Your task to perform on an android device: open app "Reddit" (install if not already installed) Image 0: 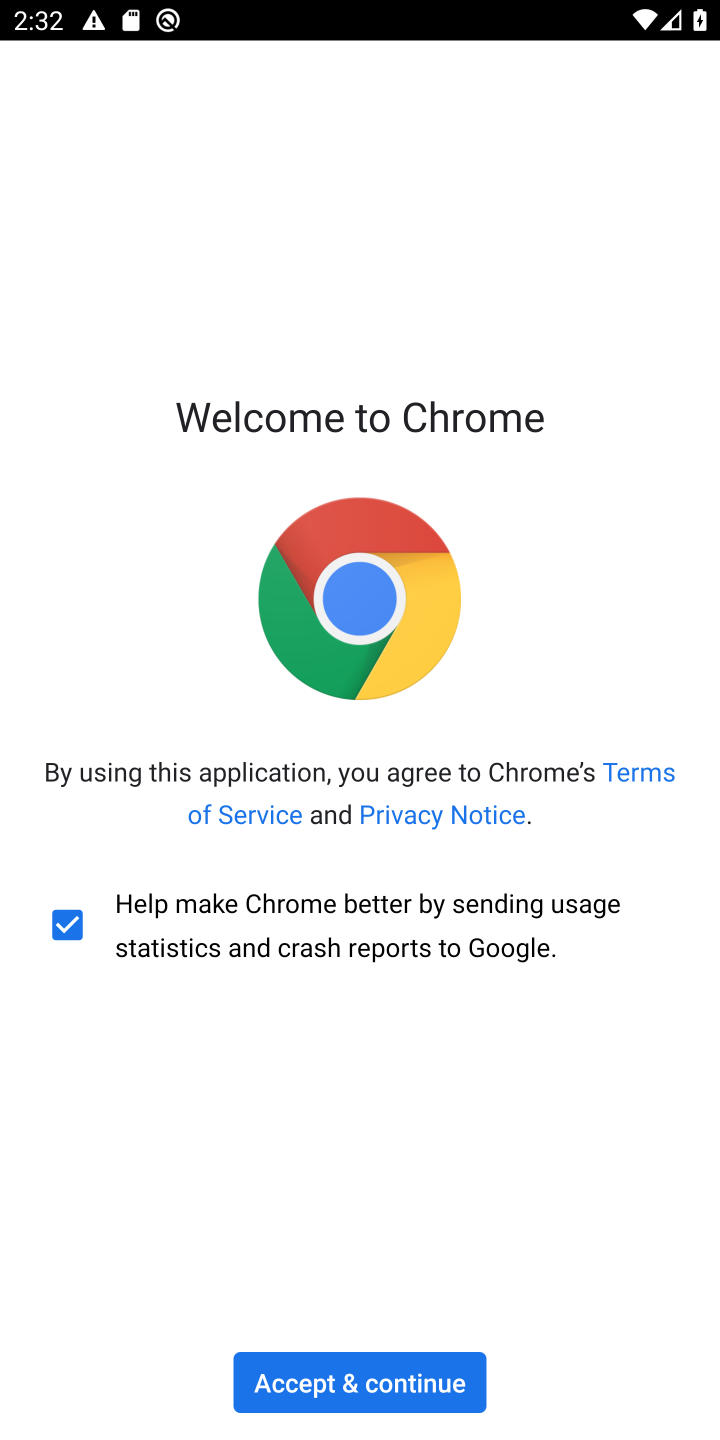
Step 0: press home button
Your task to perform on an android device: open app "Reddit" (install if not already installed) Image 1: 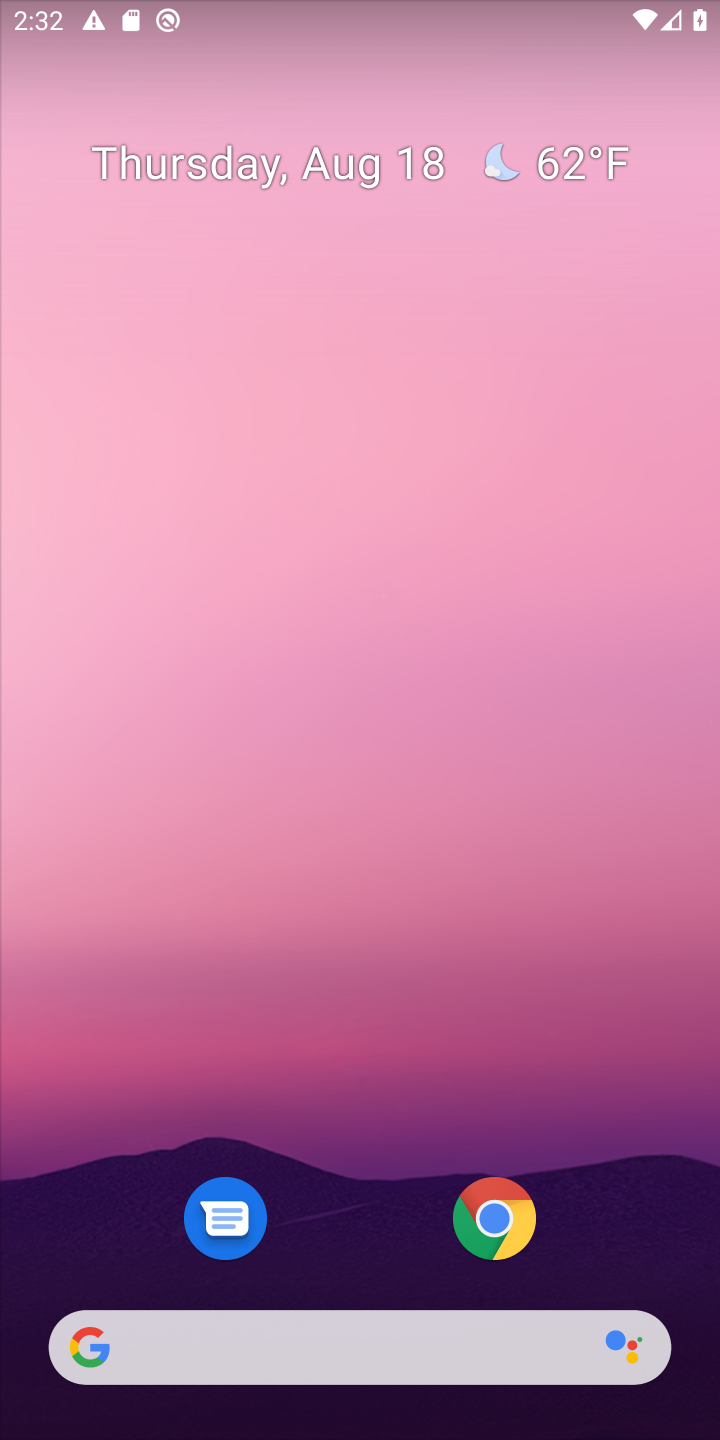
Step 1: drag from (364, 1153) to (351, 391)
Your task to perform on an android device: open app "Reddit" (install if not already installed) Image 2: 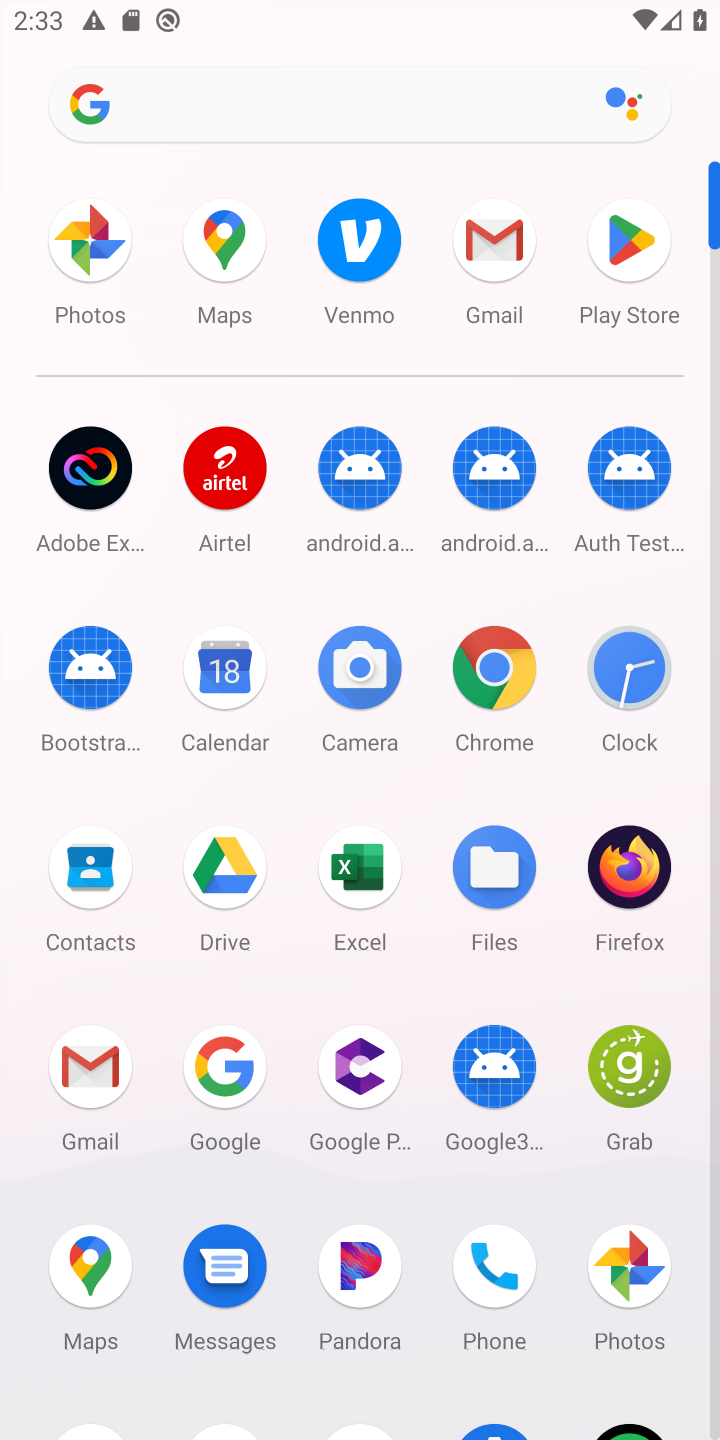
Step 2: click (607, 266)
Your task to perform on an android device: open app "Reddit" (install if not already installed) Image 3: 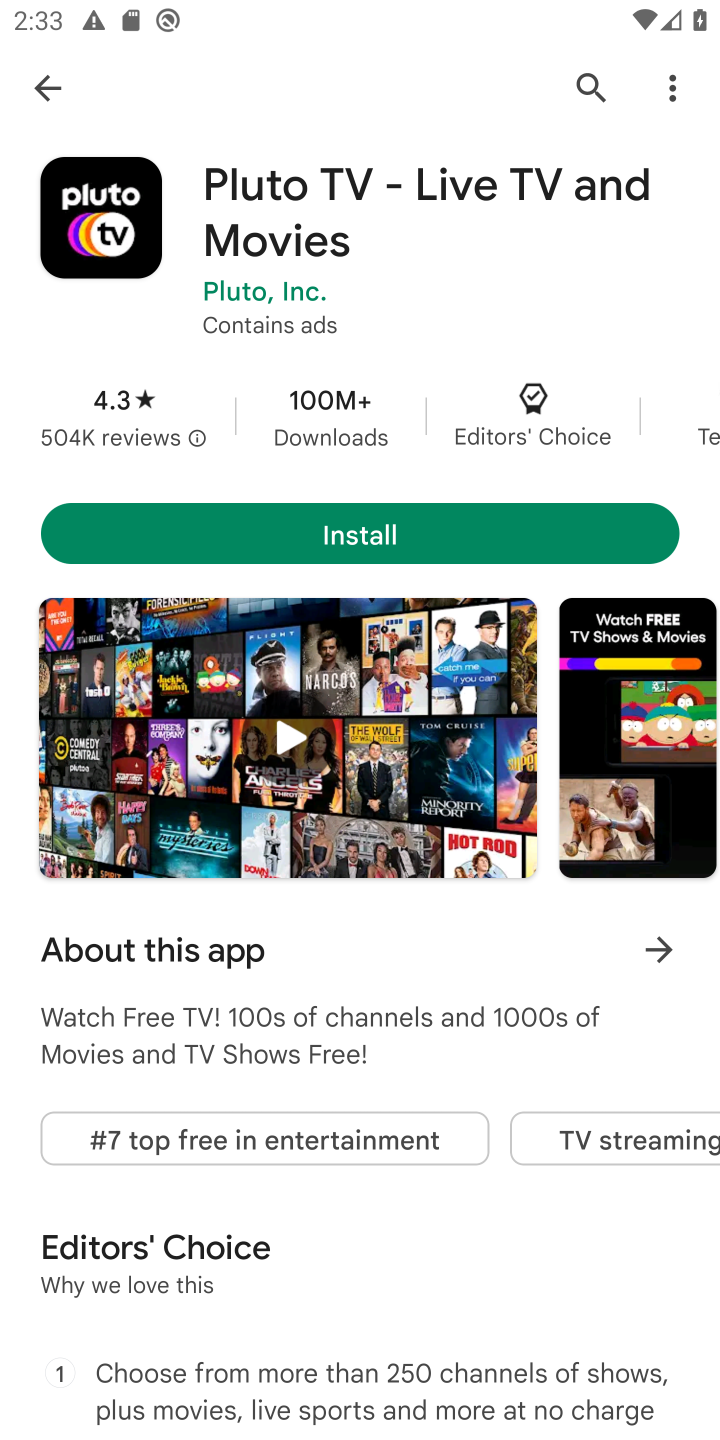
Step 3: click (569, 86)
Your task to perform on an android device: open app "Reddit" (install if not already installed) Image 4: 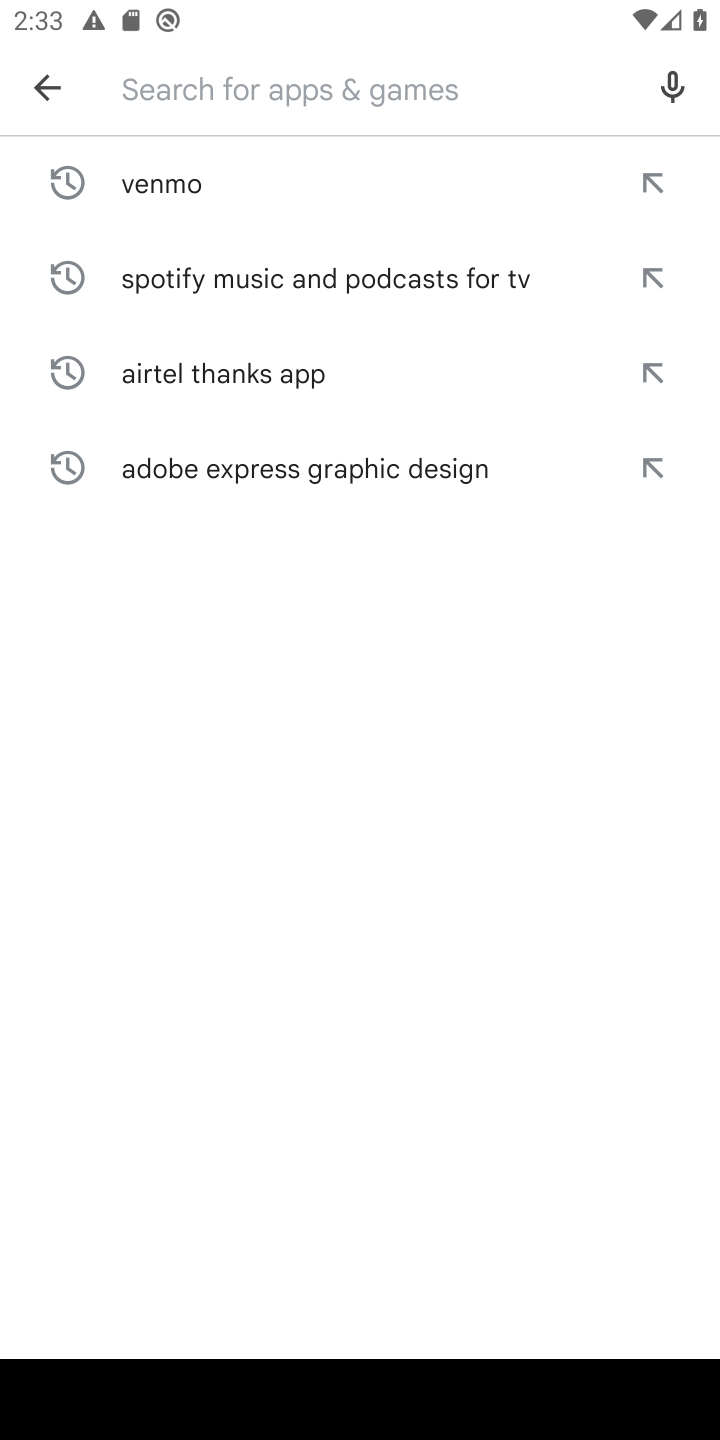
Step 4: type "Reddit"
Your task to perform on an android device: open app "Reddit" (install if not already installed) Image 5: 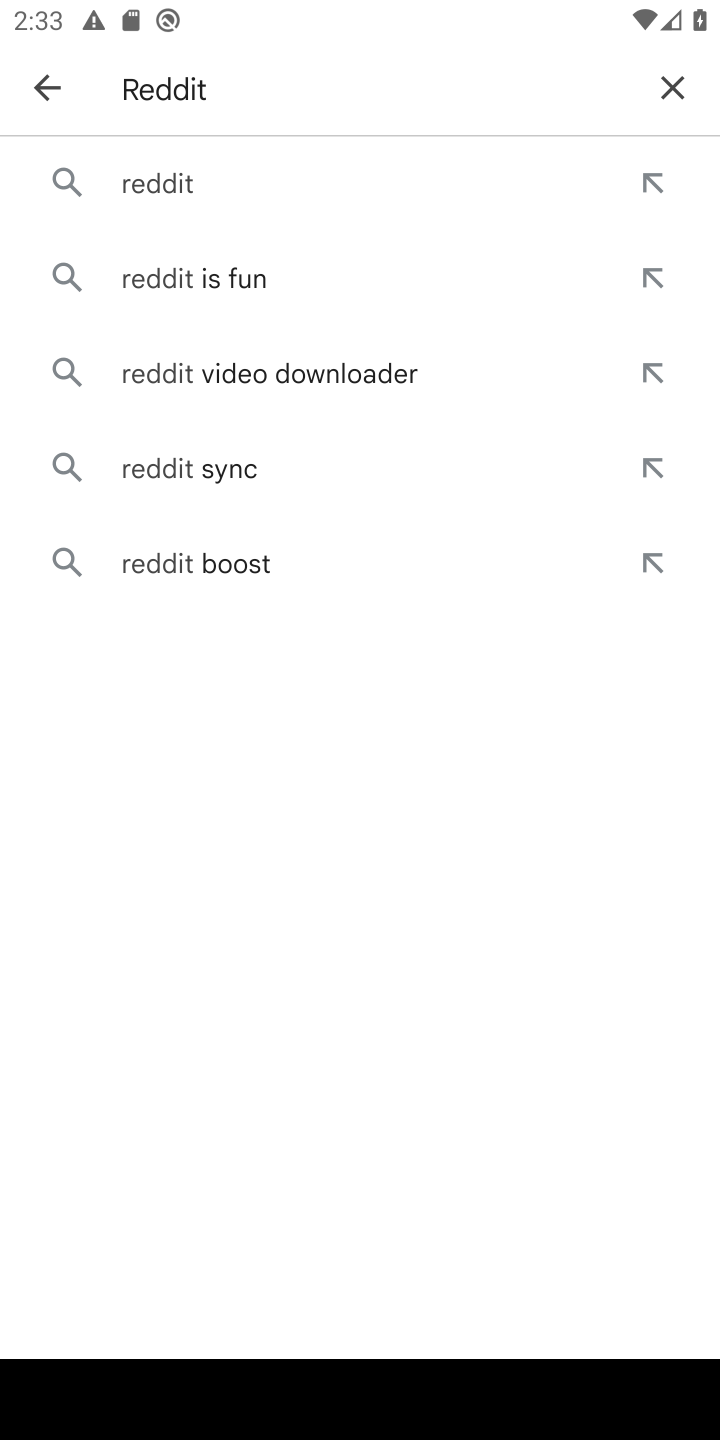
Step 5: click (239, 196)
Your task to perform on an android device: open app "Reddit" (install if not already installed) Image 6: 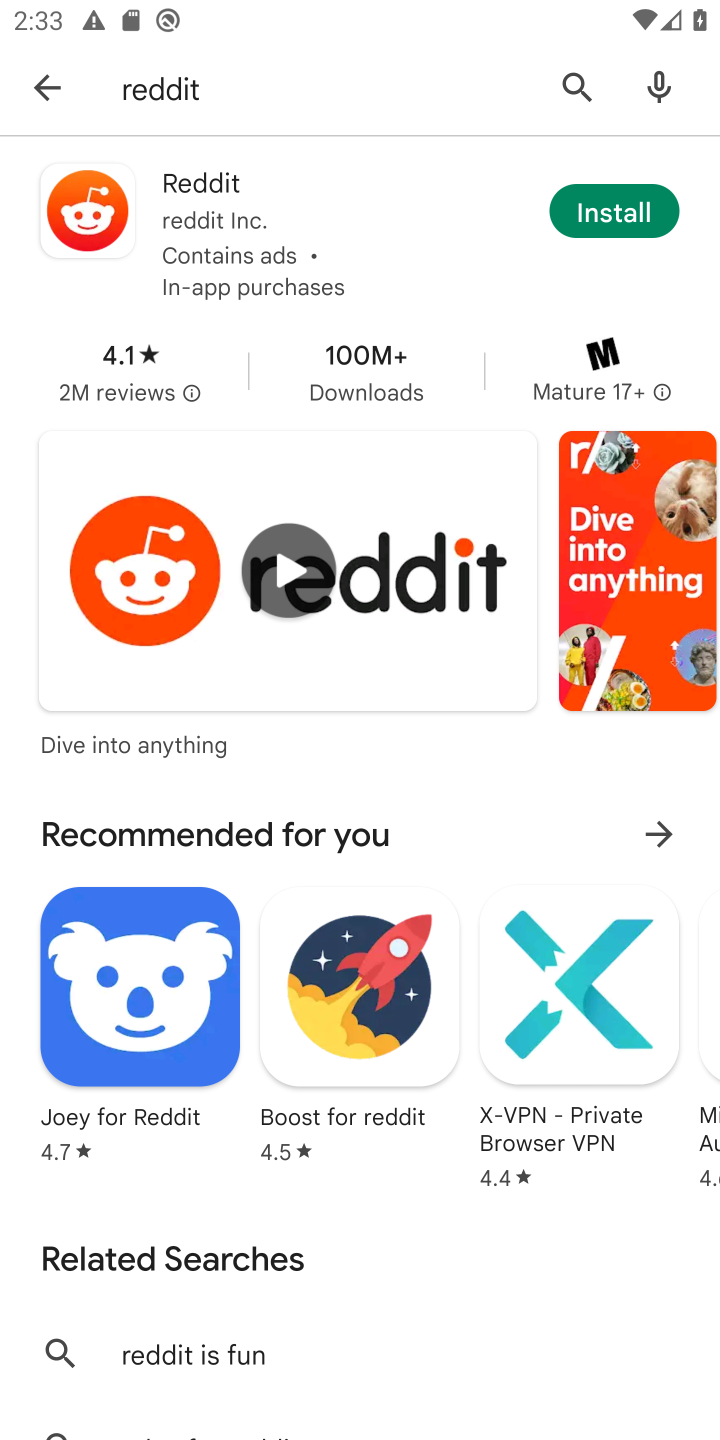
Step 6: click (634, 218)
Your task to perform on an android device: open app "Reddit" (install if not already installed) Image 7: 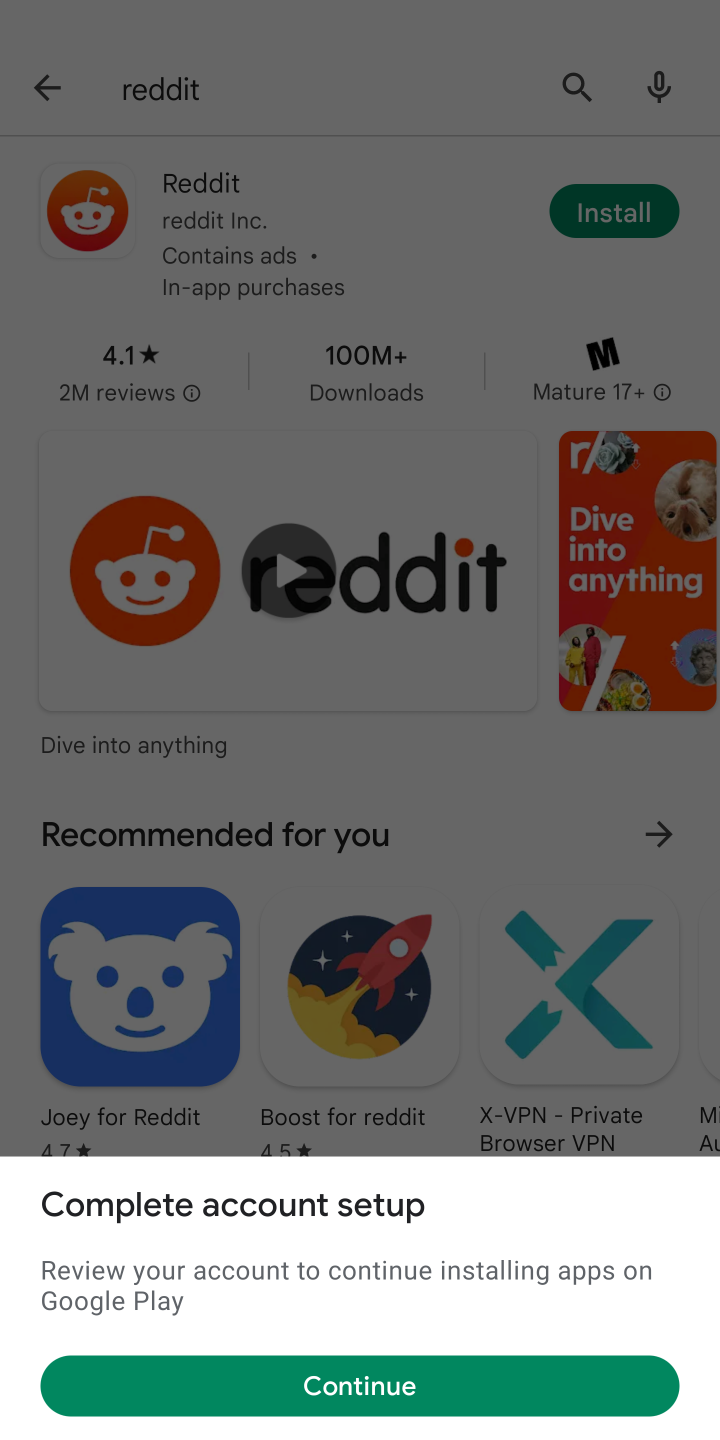
Step 7: click (567, 192)
Your task to perform on an android device: open app "Reddit" (install if not already installed) Image 8: 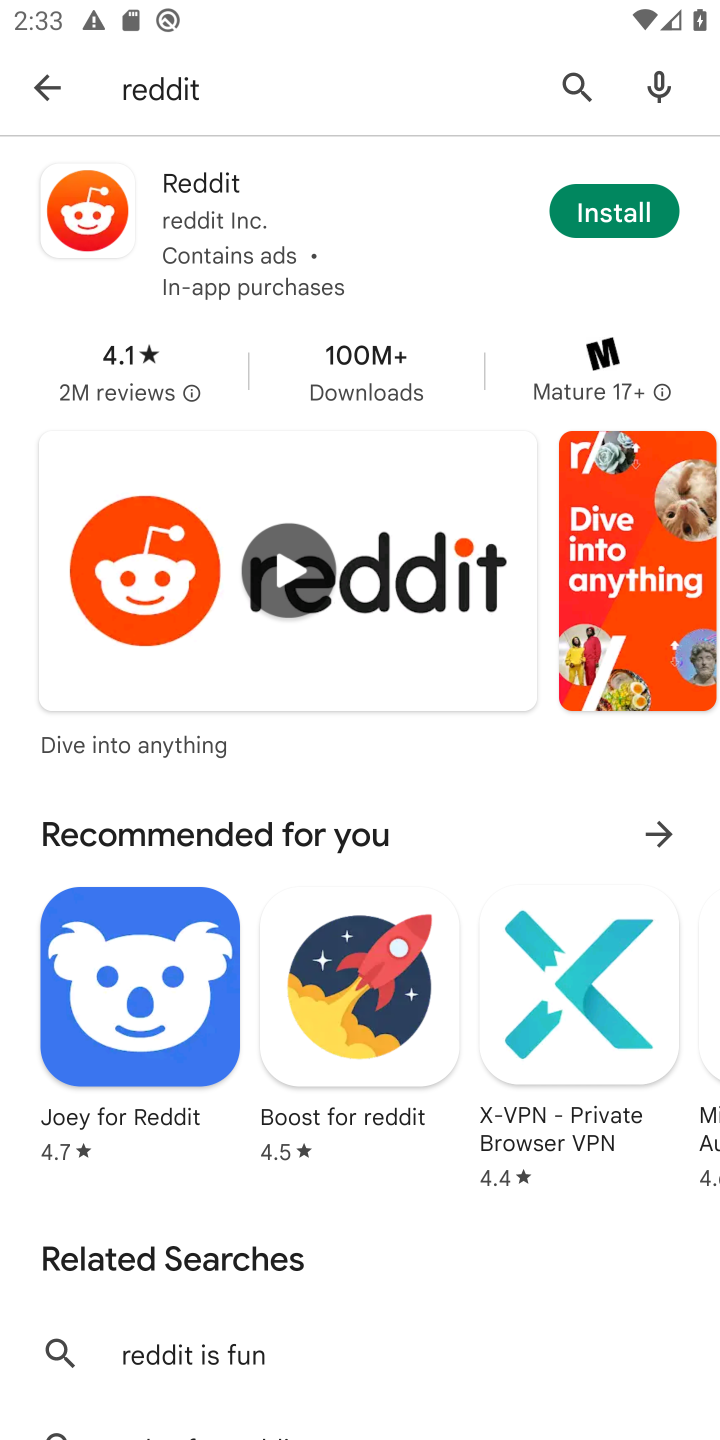
Step 8: click (595, 224)
Your task to perform on an android device: open app "Reddit" (install if not already installed) Image 9: 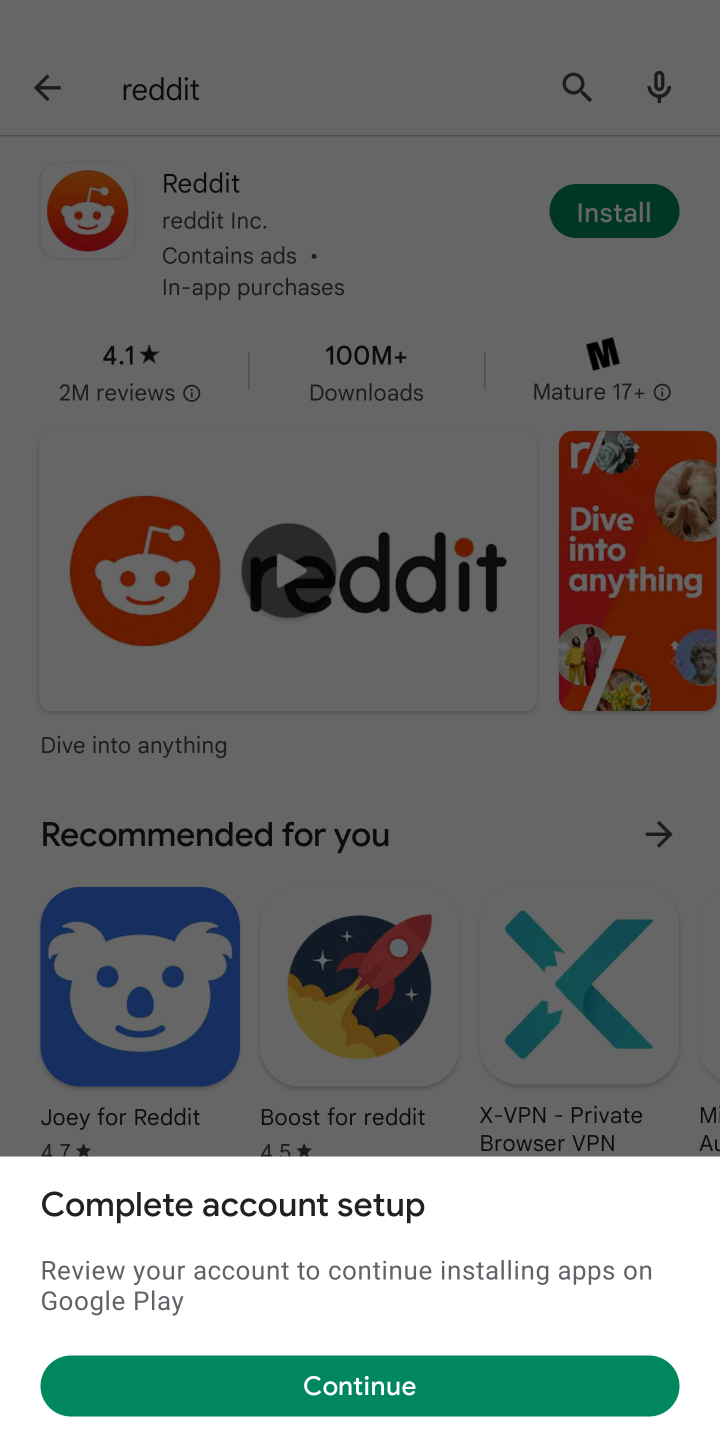
Step 9: click (373, 1382)
Your task to perform on an android device: open app "Reddit" (install if not already installed) Image 10: 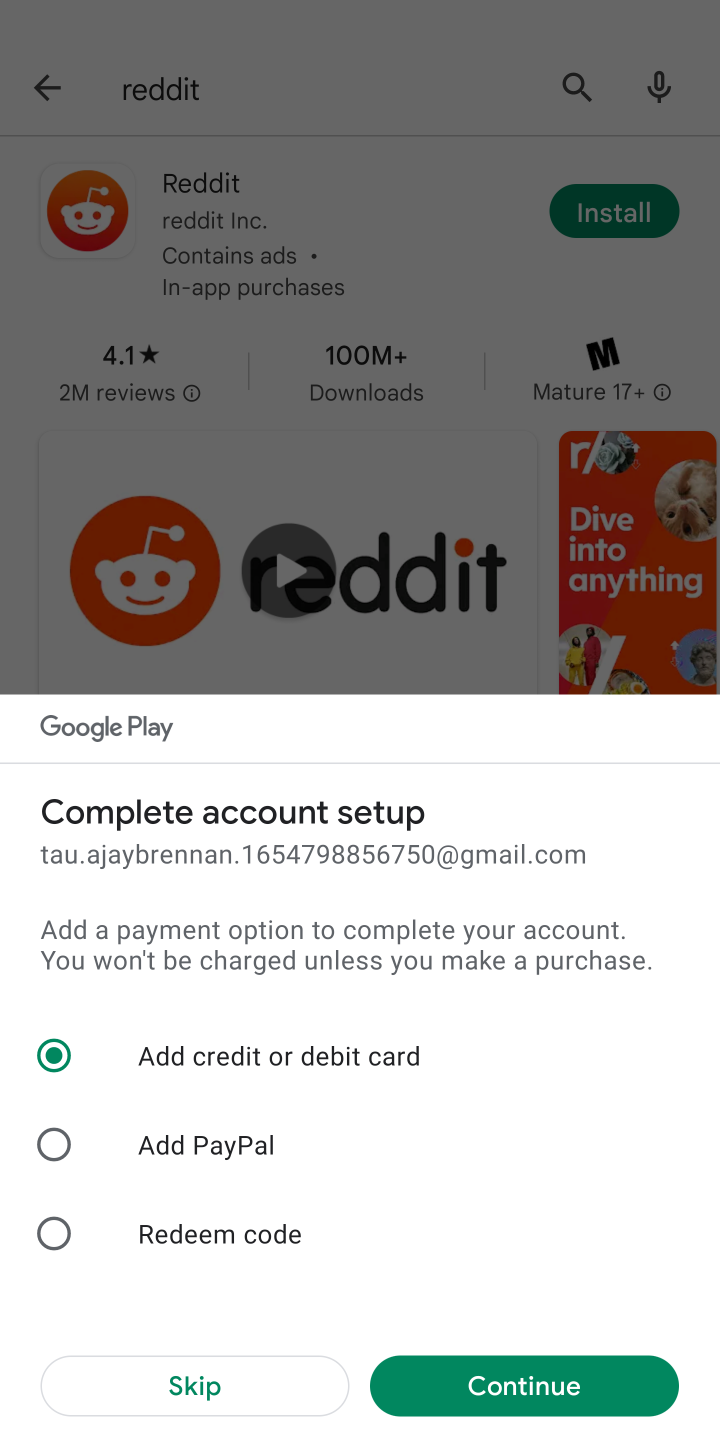
Step 10: click (165, 1403)
Your task to perform on an android device: open app "Reddit" (install if not already installed) Image 11: 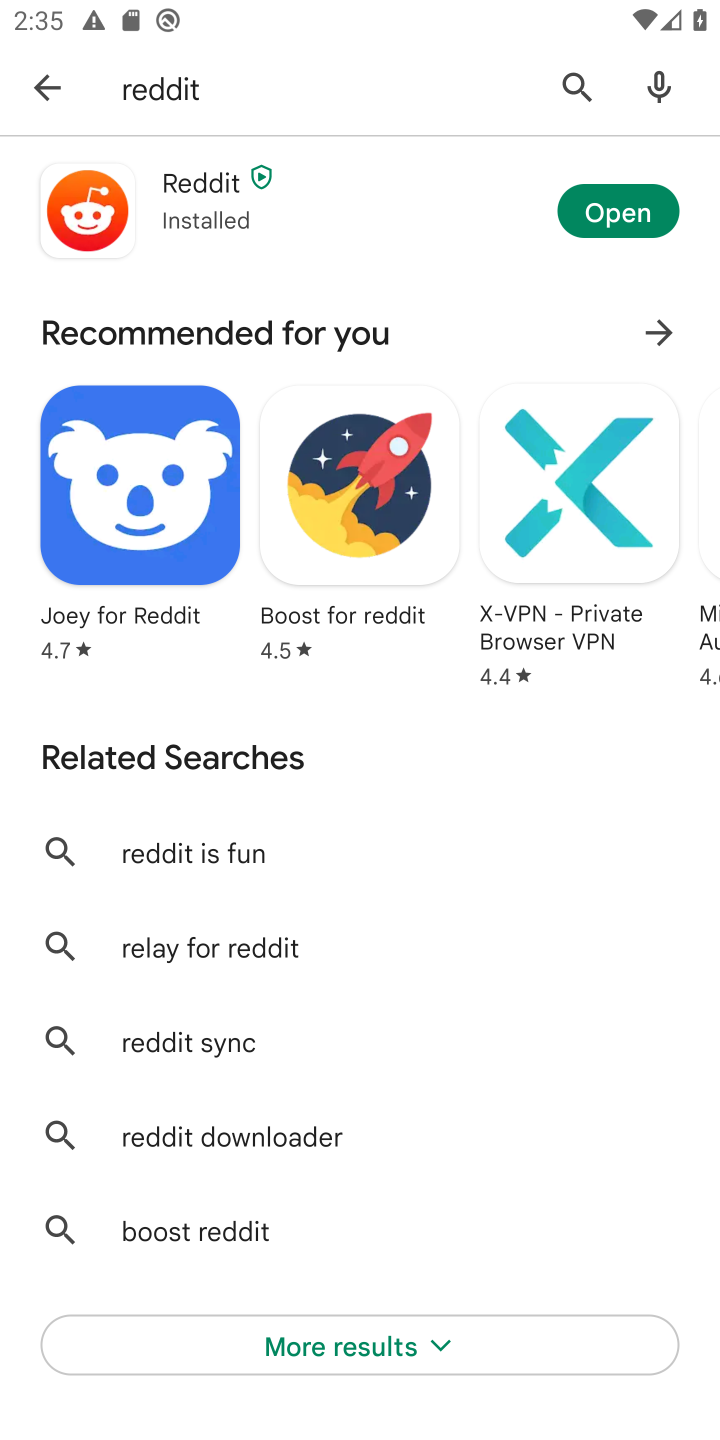
Step 11: click (580, 221)
Your task to perform on an android device: open app "Reddit" (install if not already installed) Image 12: 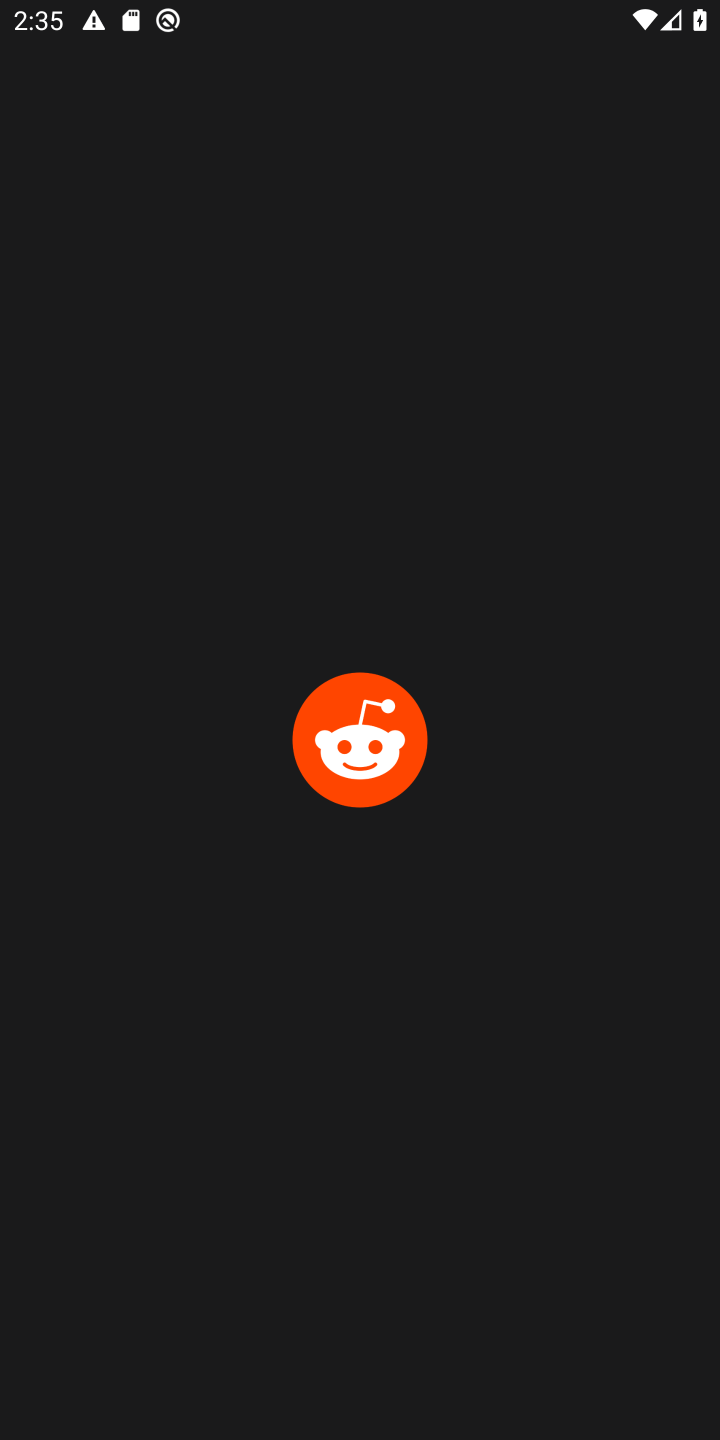
Step 12: task complete